Your task to perform on an android device: open the mobile data screen to see how much data has been used Image 0: 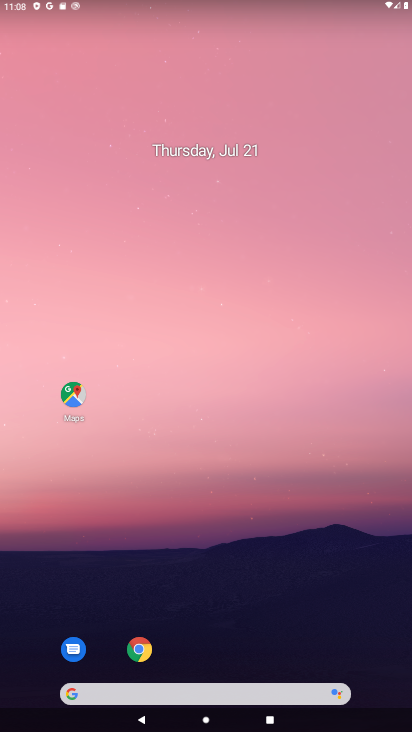
Step 0: drag from (233, 723) to (211, 271)
Your task to perform on an android device: open the mobile data screen to see how much data has been used Image 1: 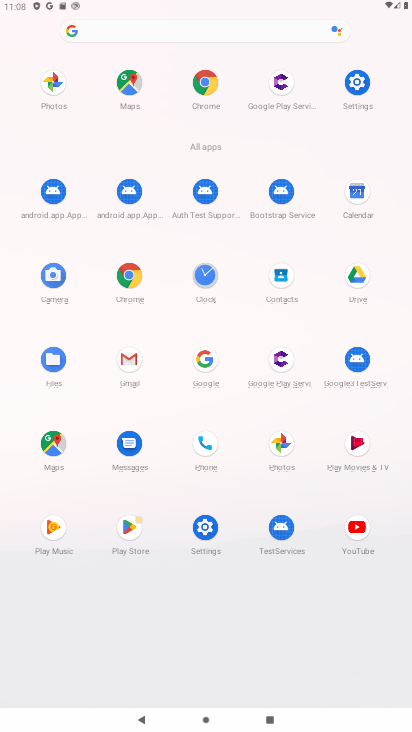
Step 1: click (359, 82)
Your task to perform on an android device: open the mobile data screen to see how much data has been used Image 2: 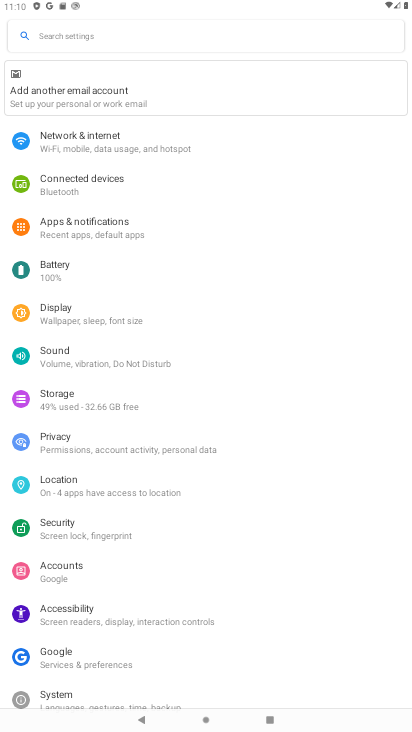
Step 2: click (79, 145)
Your task to perform on an android device: open the mobile data screen to see how much data has been used Image 3: 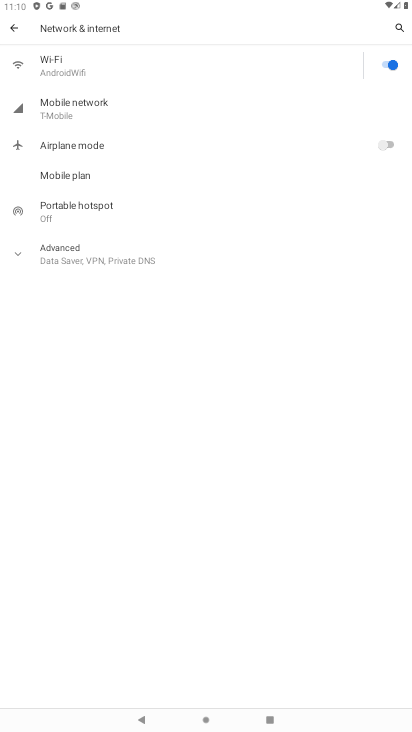
Step 3: click (83, 104)
Your task to perform on an android device: open the mobile data screen to see how much data has been used Image 4: 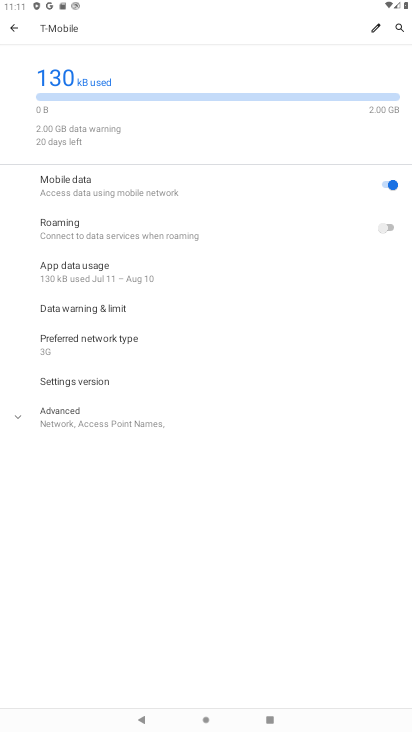
Step 4: click (78, 270)
Your task to perform on an android device: open the mobile data screen to see how much data has been used Image 5: 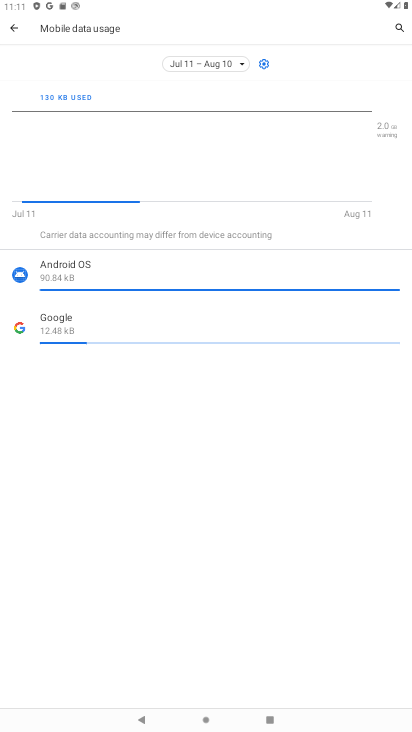
Step 5: task complete